Your task to perform on an android device: turn off priority inbox in the gmail app Image 0: 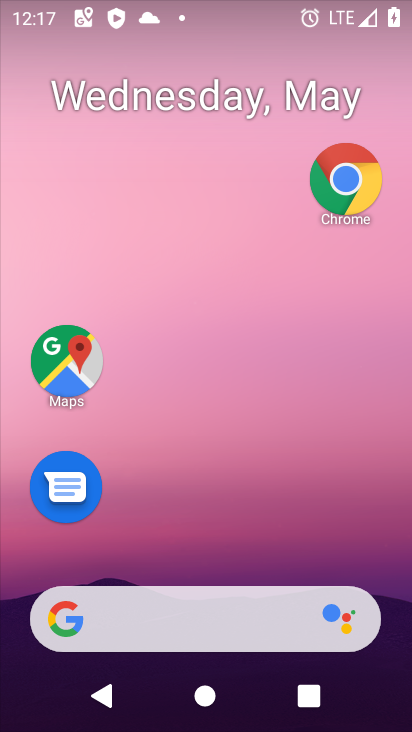
Step 0: drag from (186, 436) to (271, 108)
Your task to perform on an android device: turn off priority inbox in the gmail app Image 1: 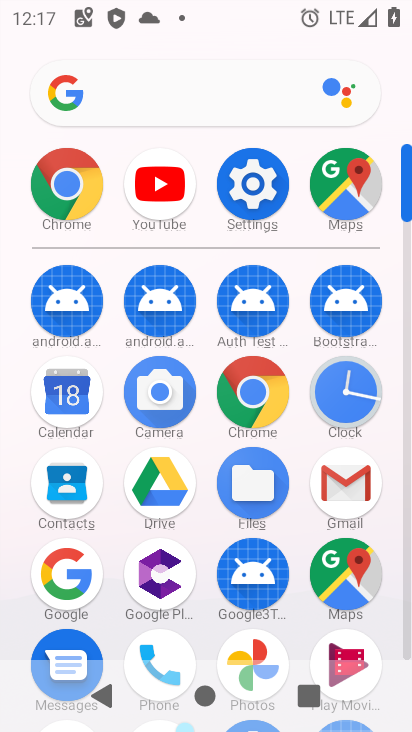
Step 1: click (365, 489)
Your task to perform on an android device: turn off priority inbox in the gmail app Image 2: 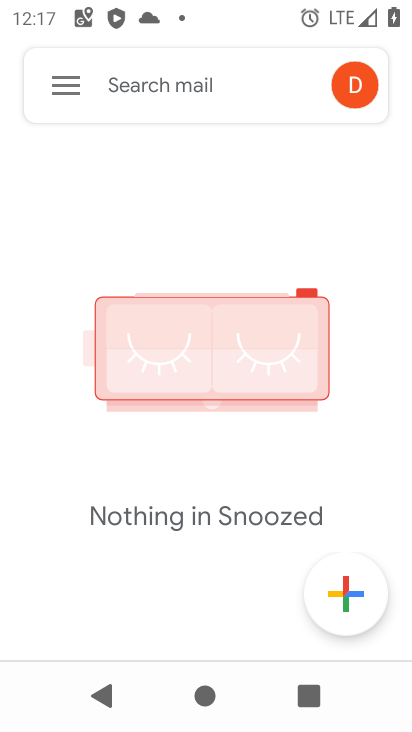
Step 2: click (44, 90)
Your task to perform on an android device: turn off priority inbox in the gmail app Image 3: 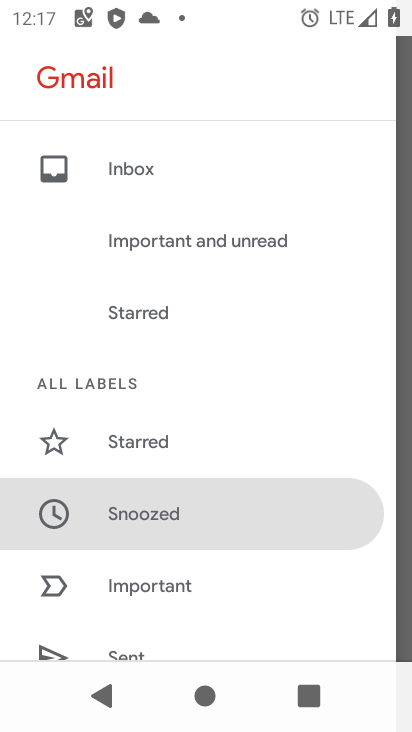
Step 3: drag from (225, 630) to (351, 92)
Your task to perform on an android device: turn off priority inbox in the gmail app Image 4: 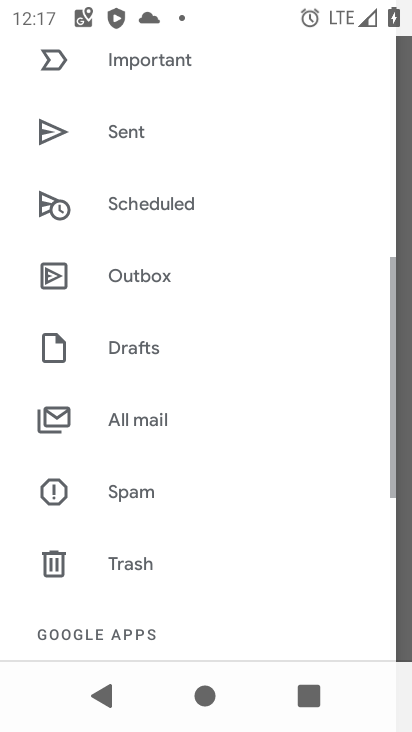
Step 4: drag from (189, 520) to (300, 124)
Your task to perform on an android device: turn off priority inbox in the gmail app Image 5: 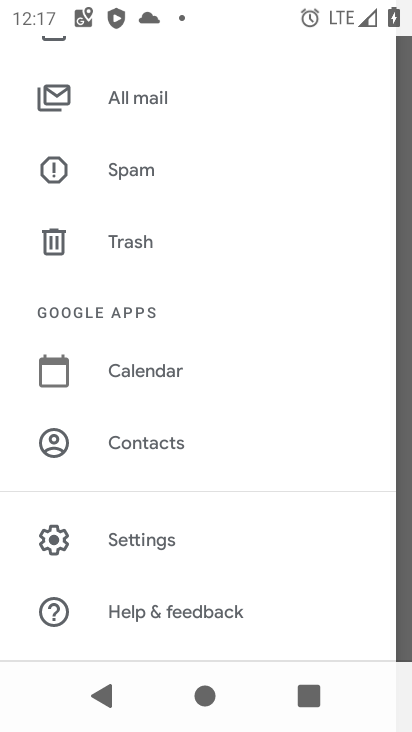
Step 5: click (146, 548)
Your task to perform on an android device: turn off priority inbox in the gmail app Image 6: 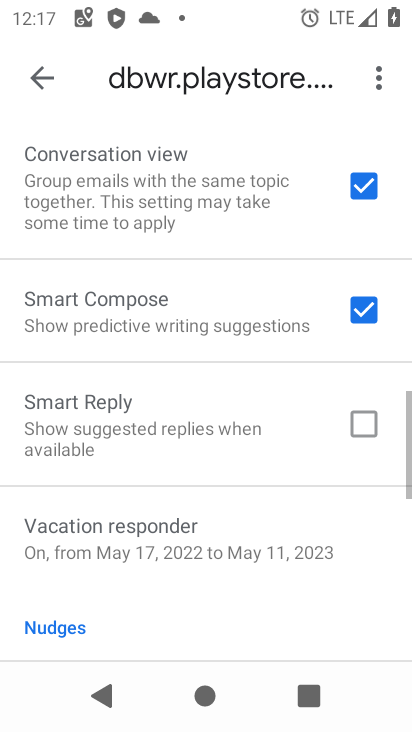
Step 6: drag from (229, 292) to (211, 723)
Your task to perform on an android device: turn off priority inbox in the gmail app Image 7: 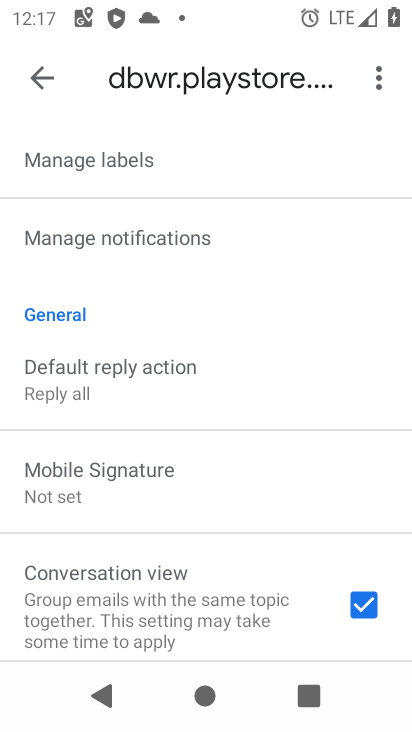
Step 7: drag from (277, 293) to (238, 632)
Your task to perform on an android device: turn off priority inbox in the gmail app Image 8: 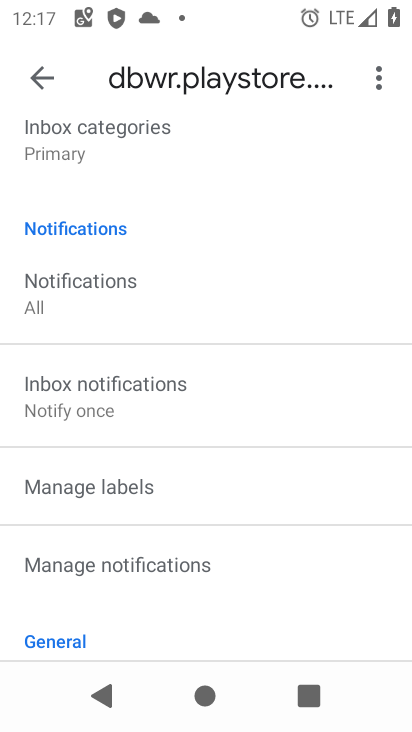
Step 8: drag from (198, 360) to (201, 685)
Your task to perform on an android device: turn off priority inbox in the gmail app Image 9: 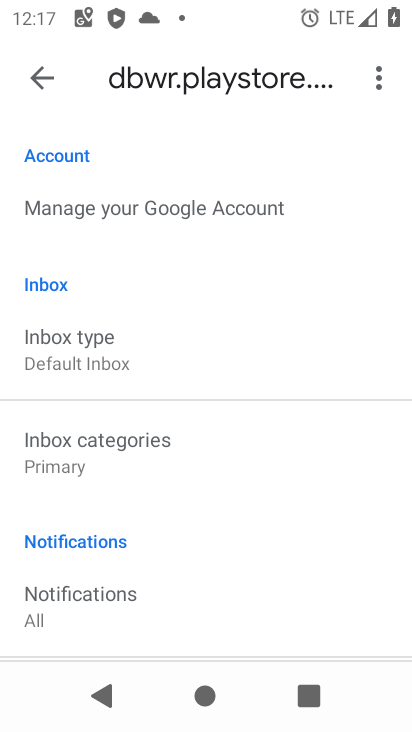
Step 9: click (136, 355)
Your task to perform on an android device: turn off priority inbox in the gmail app Image 10: 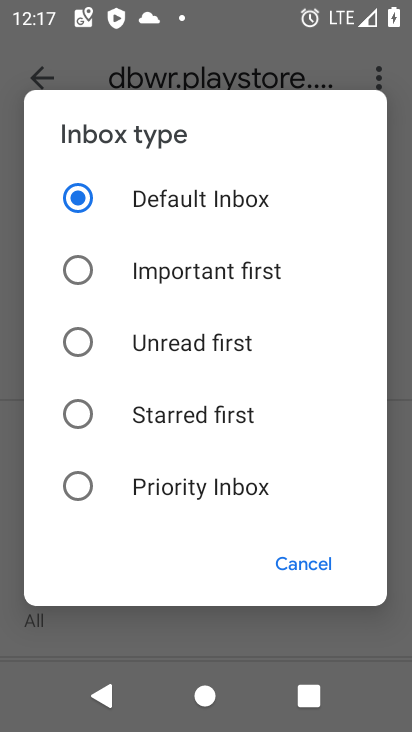
Step 10: task complete